Your task to perform on an android device: Add "energizer triple a" to the cart on walmart.com Image 0: 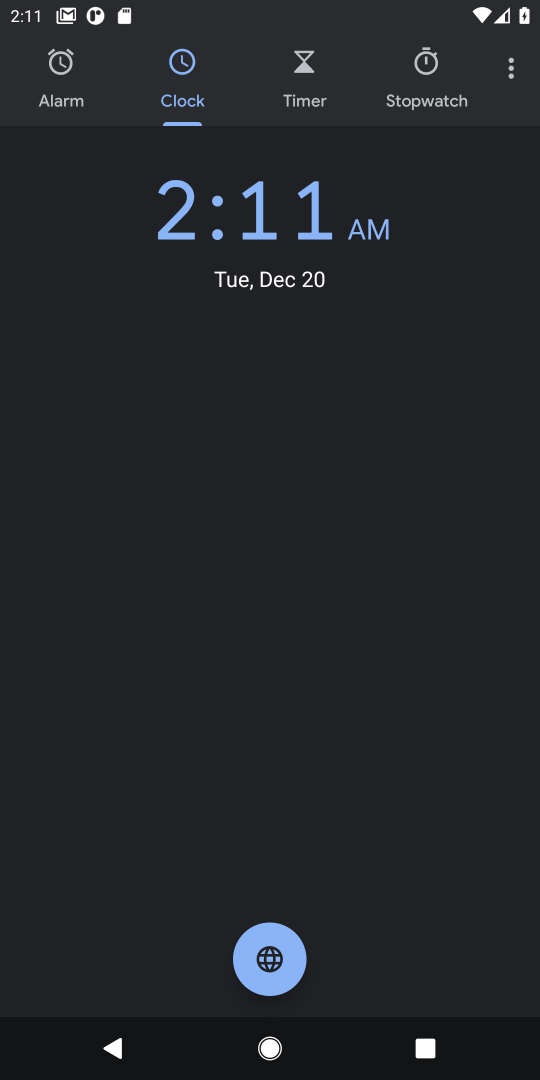
Step 0: press home button
Your task to perform on an android device: Add "energizer triple a" to the cart on walmart.com Image 1: 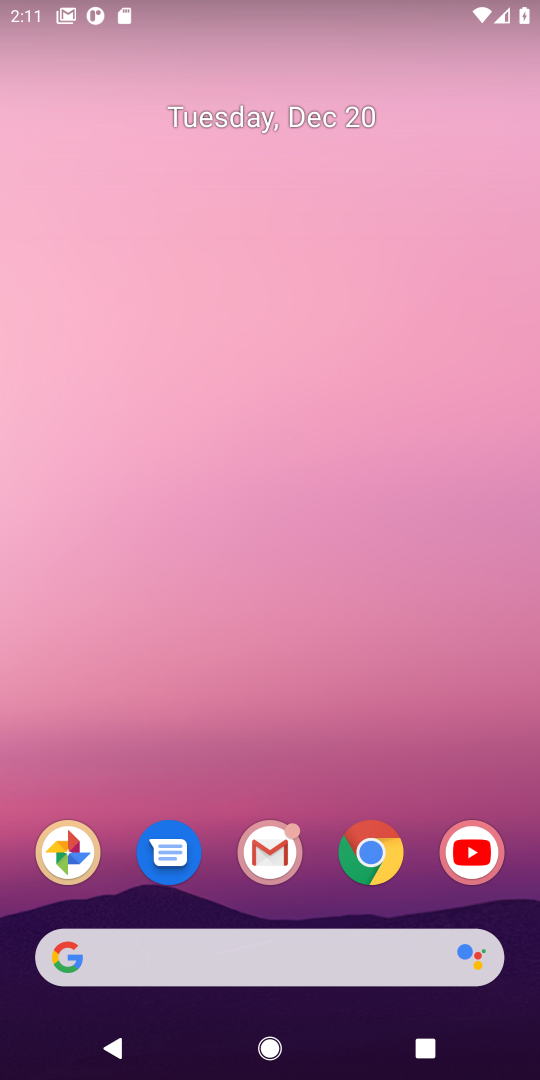
Step 1: click (383, 860)
Your task to perform on an android device: Add "energizer triple a" to the cart on walmart.com Image 2: 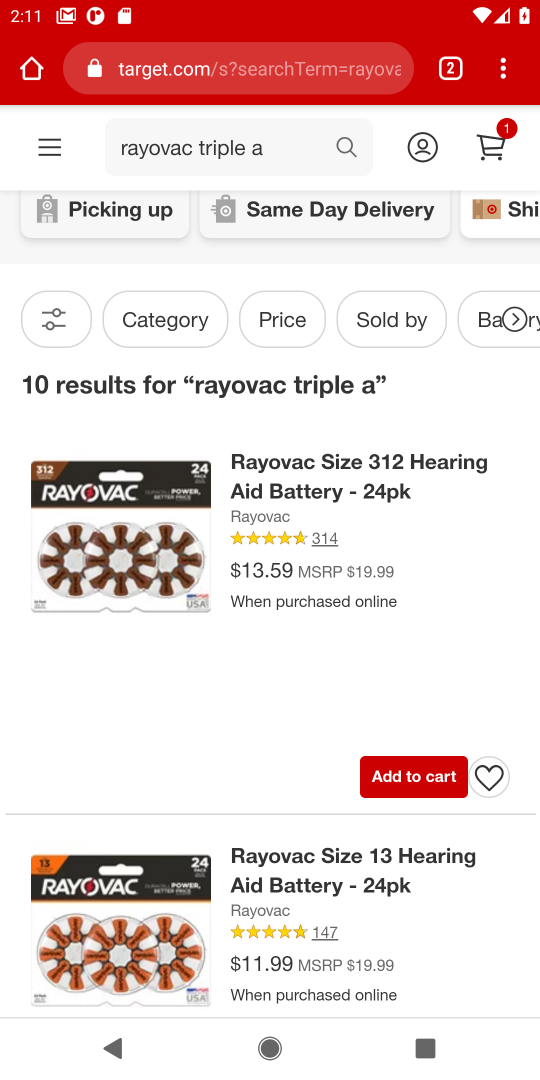
Step 2: click (187, 79)
Your task to perform on an android device: Add "energizer triple a" to the cart on walmart.com Image 3: 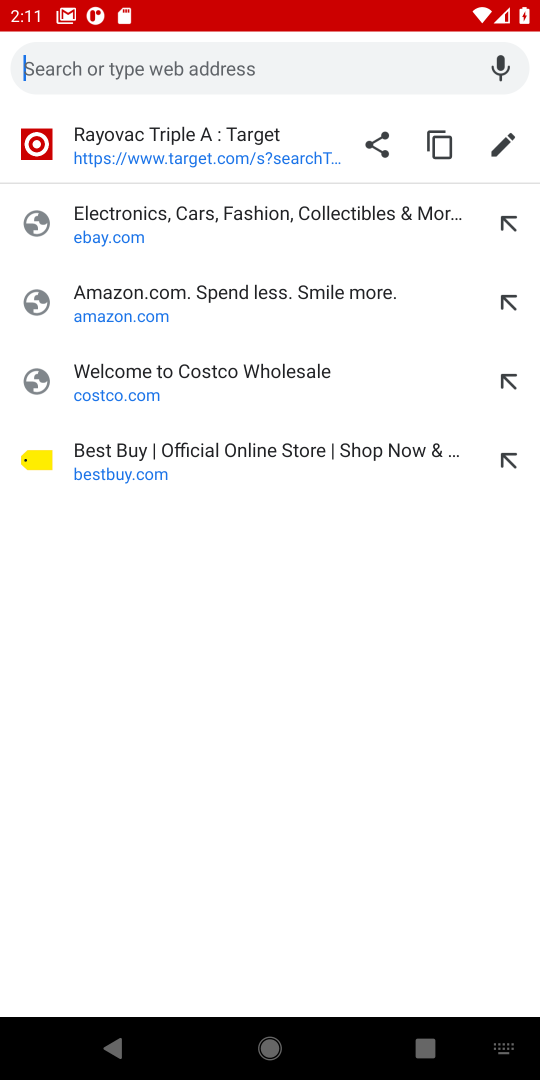
Step 3: type "walmart.com"
Your task to perform on an android device: Add "energizer triple a" to the cart on walmart.com Image 4: 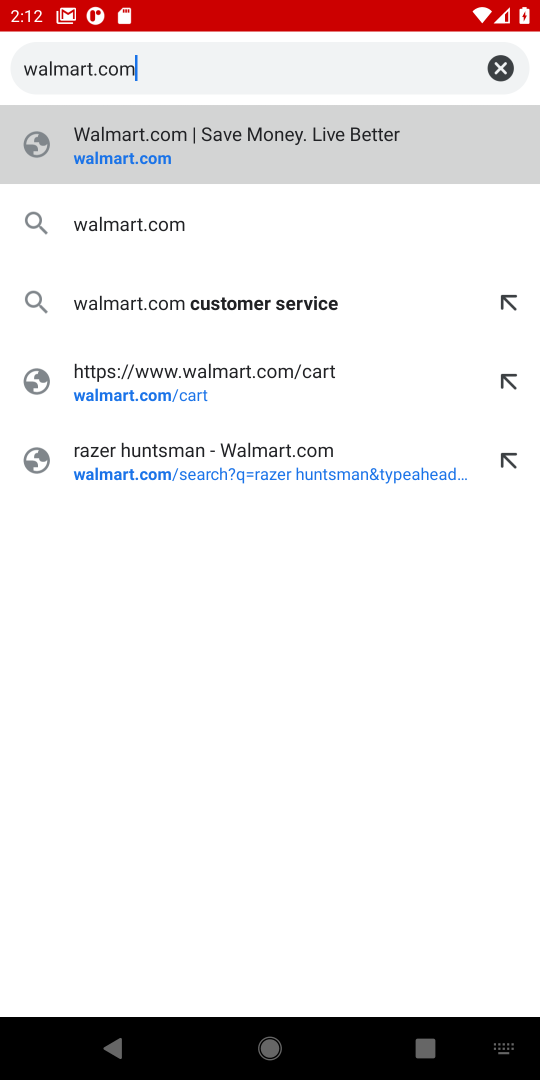
Step 4: click (114, 152)
Your task to perform on an android device: Add "energizer triple a" to the cart on walmart.com Image 5: 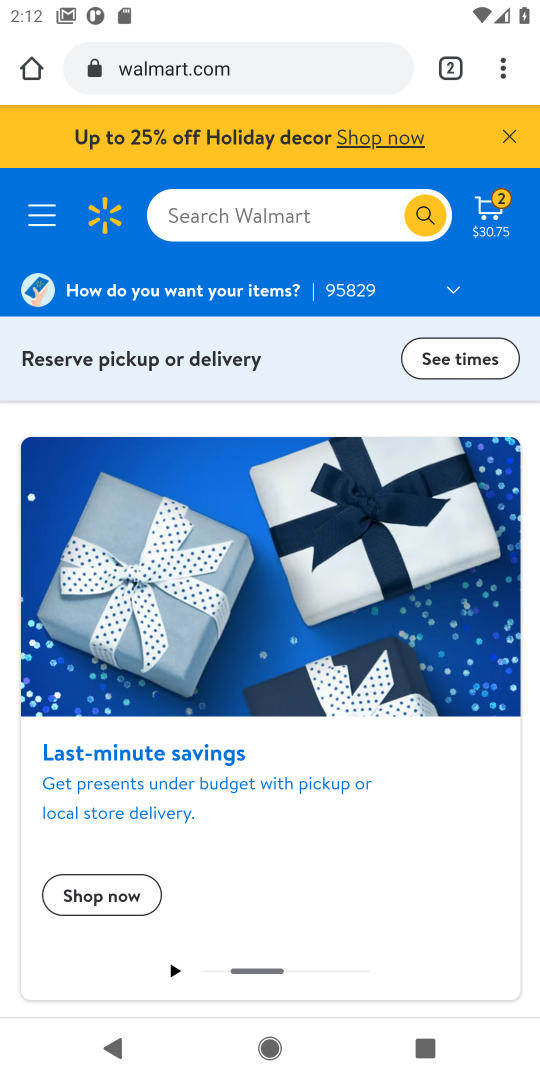
Step 5: click (199, 212)
Your task to perform on an android device: Add "energizer triple a" to the cart on walmart.com Image 6: 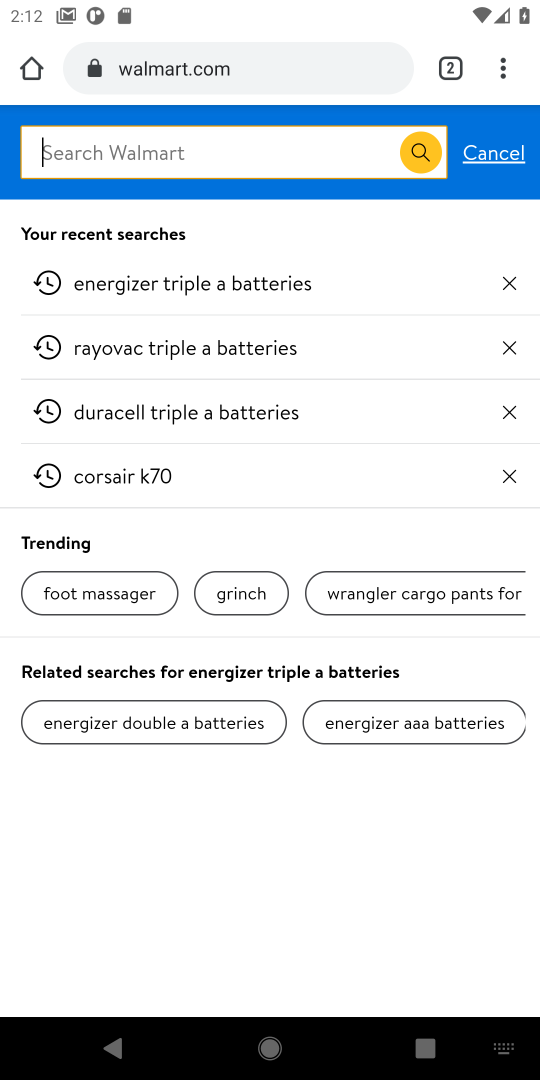
Step 6: type "energizer triple a"
Your task to perform on an android device: Add "energizer triple a" to the cart on walmart.com Image 7: 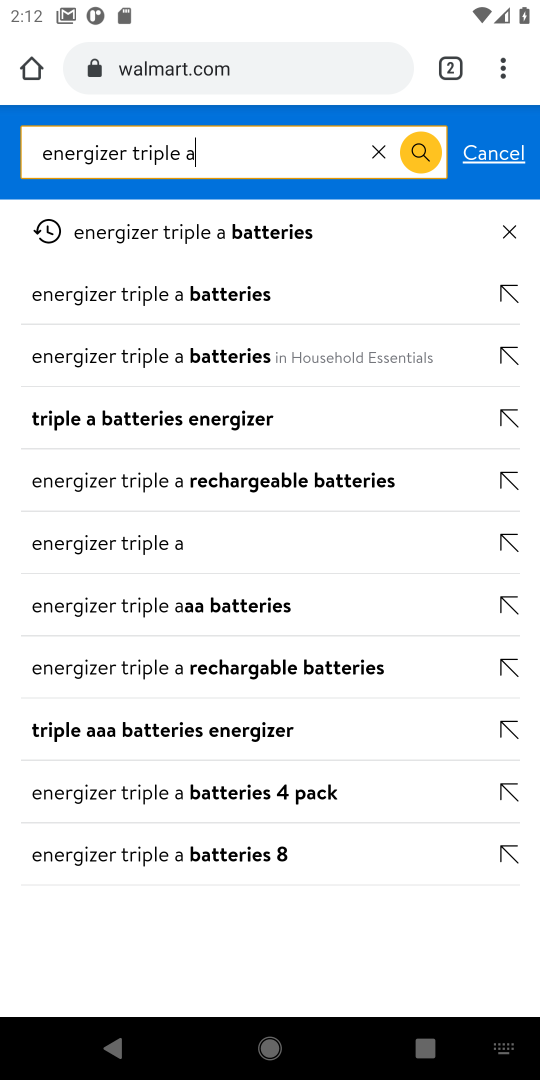
Step 7: click (214, 242)
Your task to perform on an android device: Add "energizer triple a" to the cart on walmart.com Image 8: 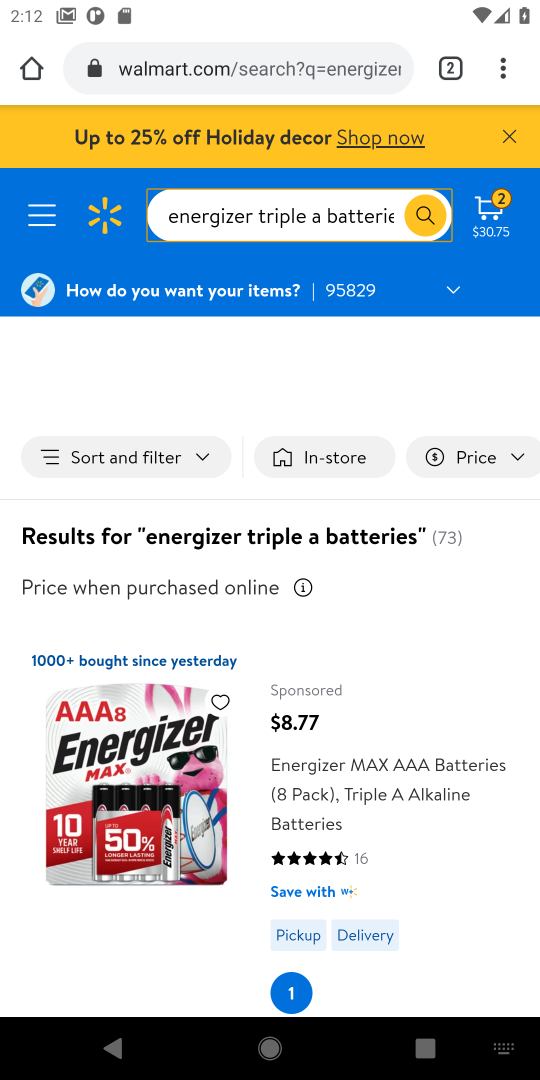
Step 8: drag from (304, 627) to (320, 375)
Your task to perform on an android device: Add "energizer triple a" to the cart on walmart.com Image 9: 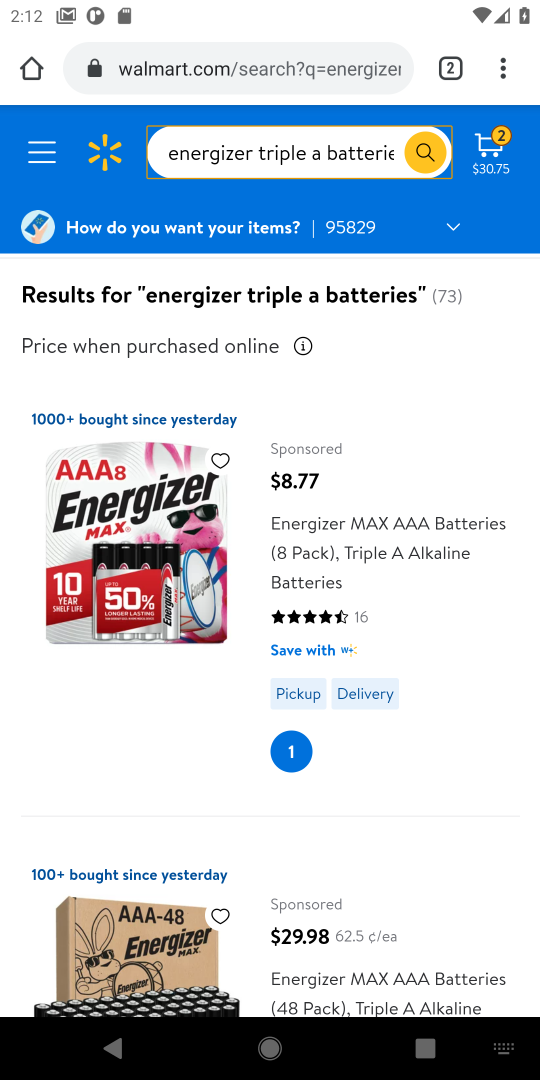
Step 9: click (341, 582)
Your task to perform on an android device: Add "energizer triple a" to the cart on walmart.com Image 10: 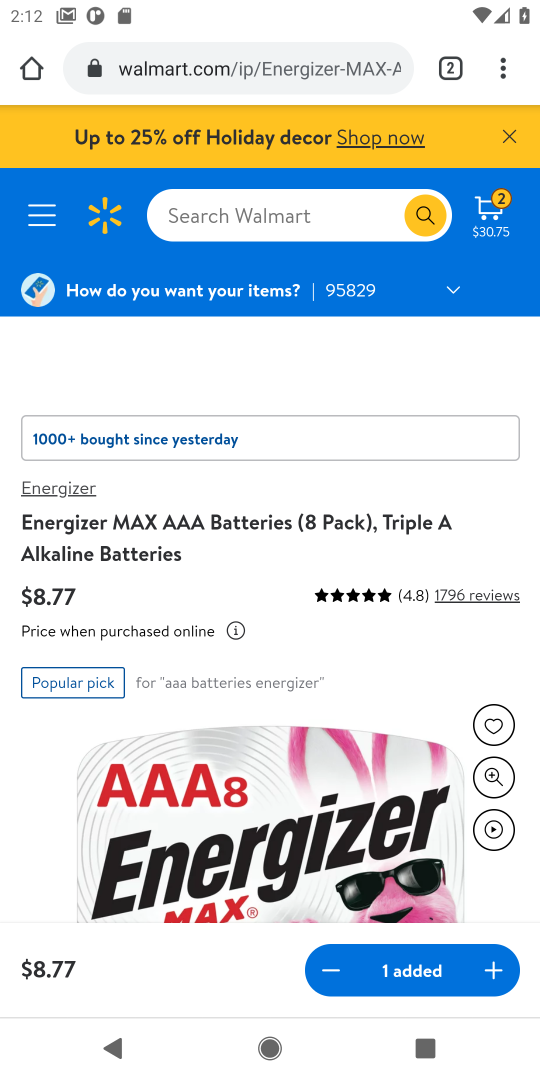
Step 10: click (505, 980)
Your task to perform on an android device: Add "energizer triple a" to the cart on walmart.com Image 11: 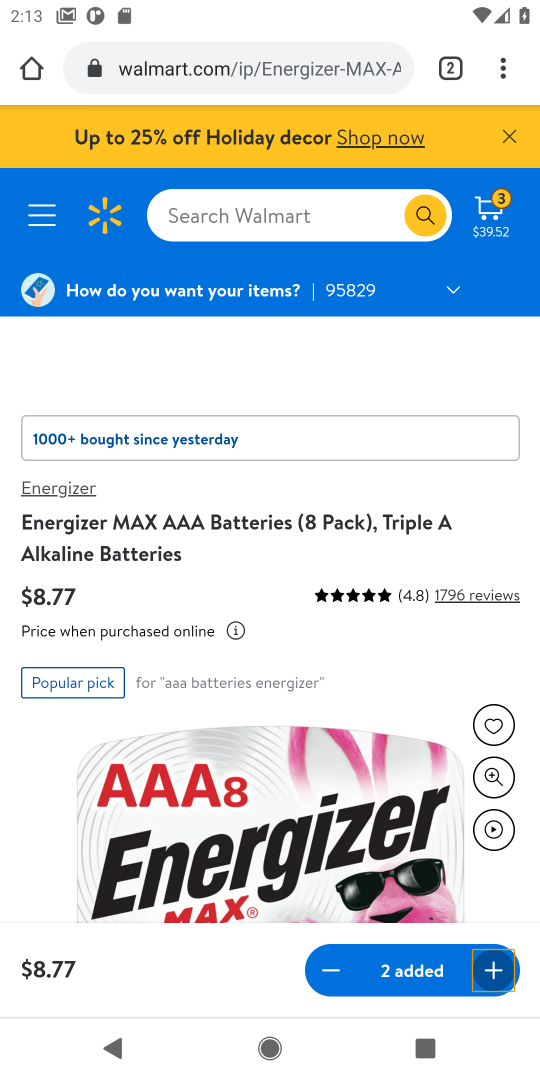
Step 11: task complete